Your task to perform on an android device: Open Google Maps and go to "Timeline" Image 0: 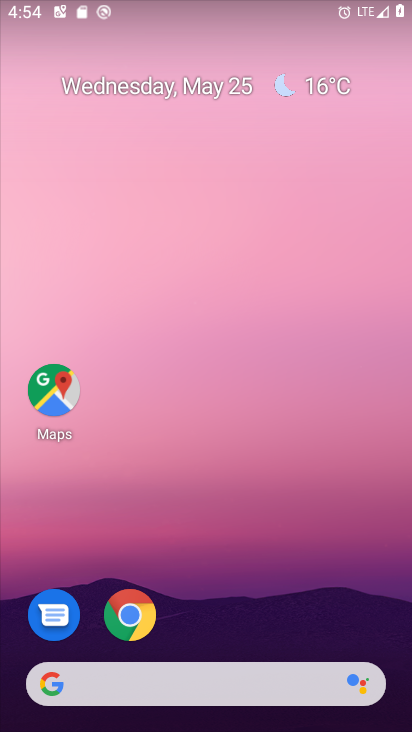
Step 0: click (46, 376)
Your task to perform on an android device: Open Google Maps and go to "Timeline" Image 1: 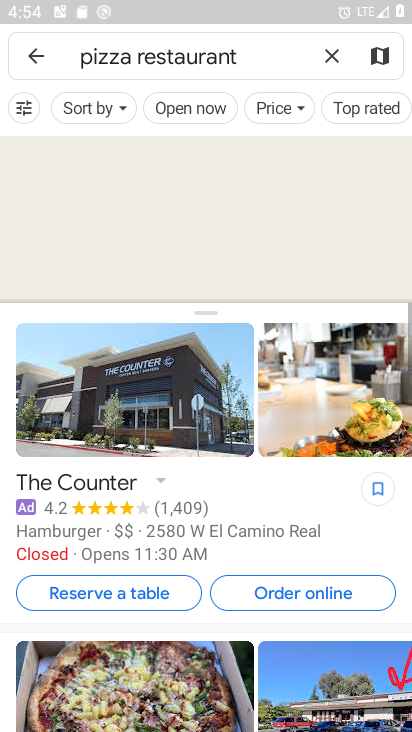
Step 1: click (44, 51)
Your task to perform on an android device: Open Google Maps and go to "Timeline" Image 2: 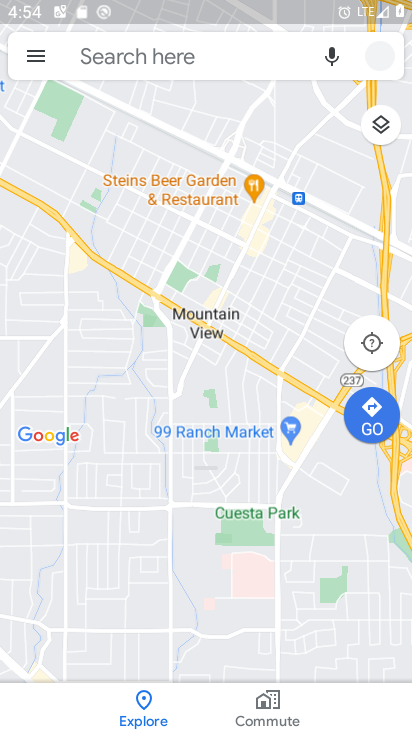
Step 2: click (43, 51)
Your task to perform on an android device: Open Google Maps and go to "Timeline" Image 3: 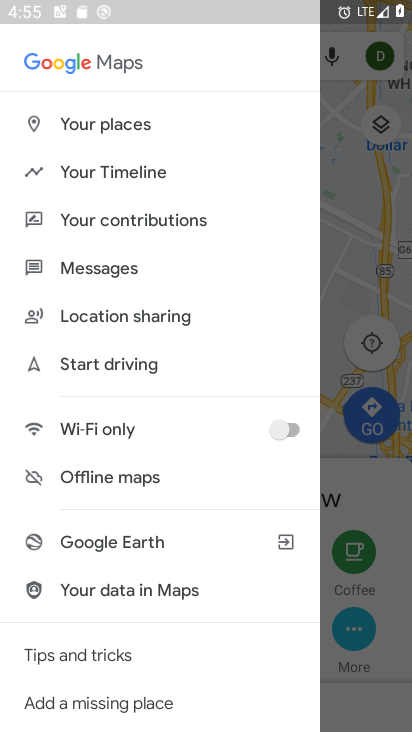
Step 3: click (97, 159)
Your task to perform on an android device: Open Google Maps and go to "Timeline" Image 4: 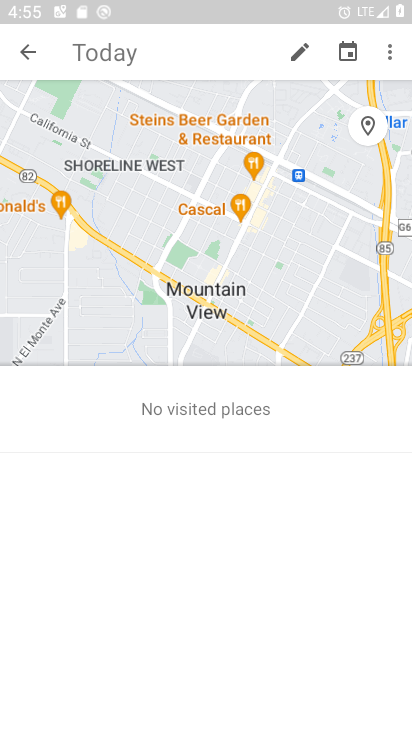
Step 4: task complete